Your task to perform on an android device: turn on showing notifications on the lock screen Image 0: 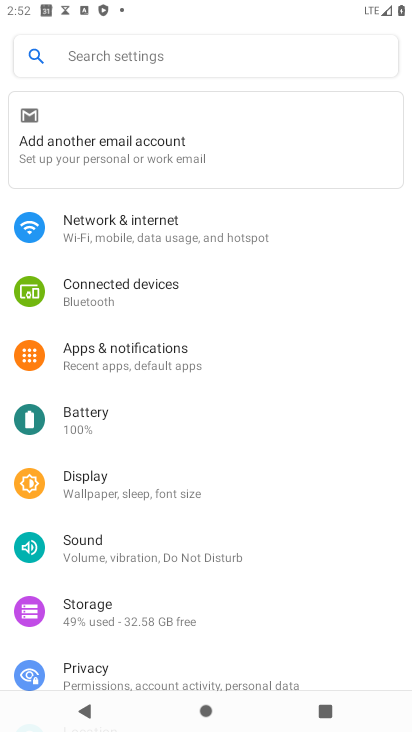
Step 0: press home button
Your task to perform on an android device: turn on showing notifications on the lock screen Image 1: 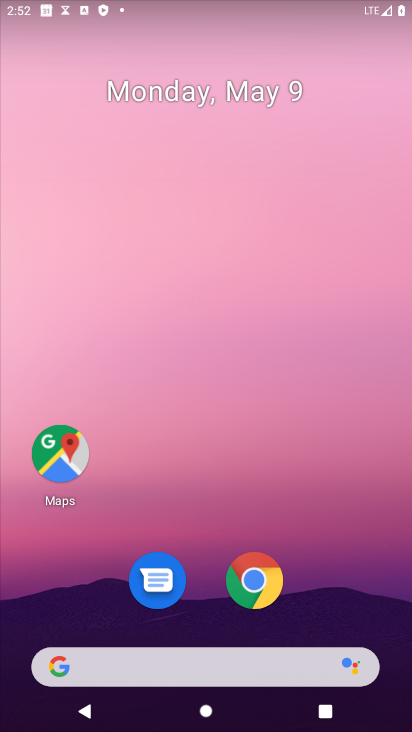
Step 1: drag from (340, 577) to (205, 84)
Your task to perform on an android device: turn on showing notifications on the lock screen Image 2: 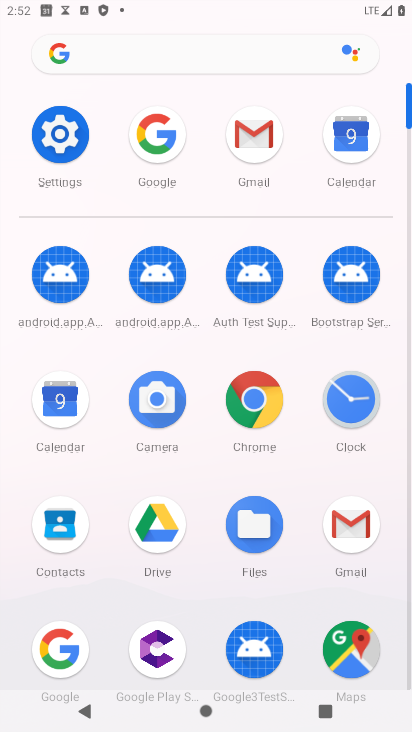
Step 2: click (67, 152)
Your task to perform on an android device: turn on showing notifications on the lock screen Image 3: 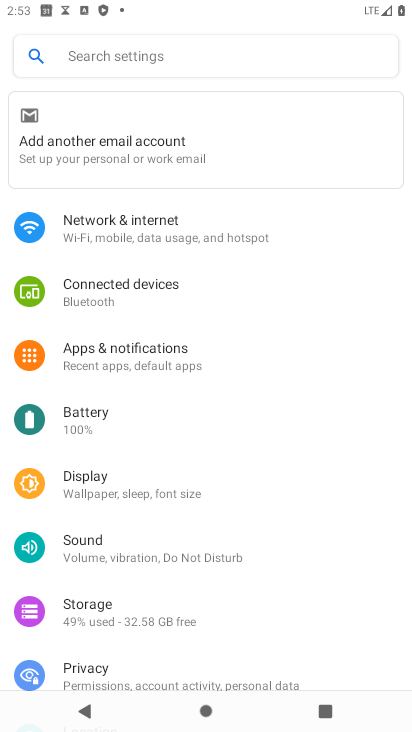
Step 3: click (168, 354)
Your task to perform on an android device: turn on showing notifications on the lock screen Image 4: 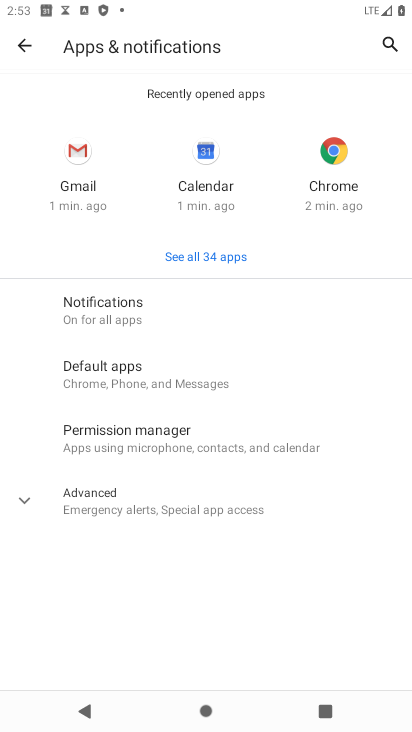
Step 4: click (139, 311)
Your task to perform on an android device: turn on showing notifications on the lock screen Image 5: 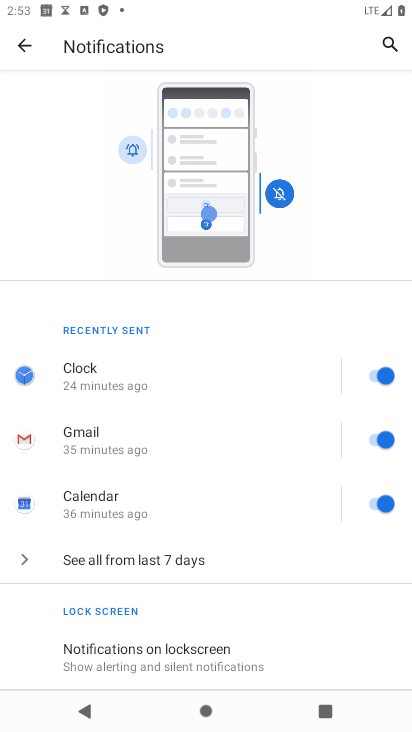
Step 5: click (209, 648)
Your task to perform on an android device: turn on showing notifications on the lock screen Image 6: 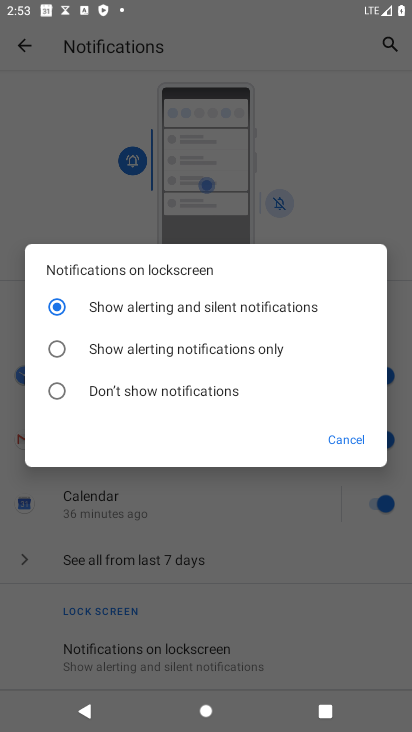
Step 6: task complete